Your task to perform on an android device: move an email to a new category in the gmail app Image 0: 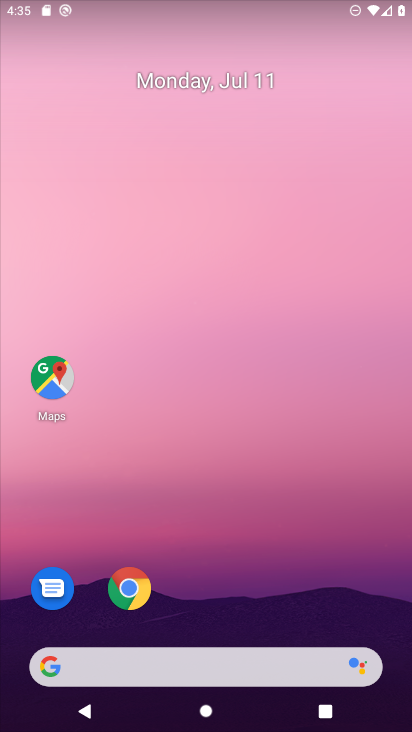
Step 0: press home button
Your task to perform on an android device: move an email to a new category in the gmail app Image 1: 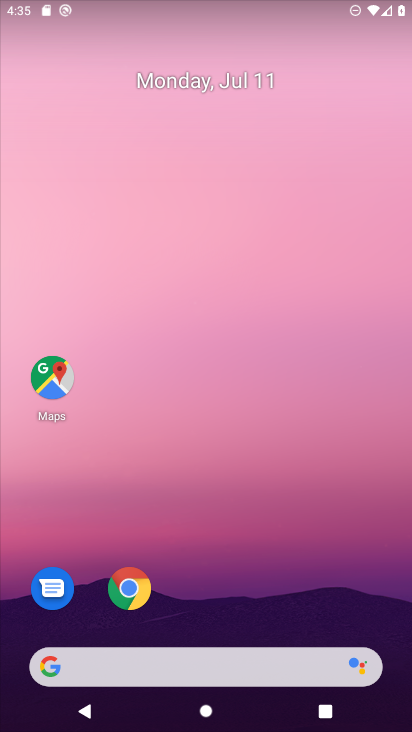
Step 1: click (410, 596)
Your task to perform on an android device: move an email to a new category in the gmail app Image 2: 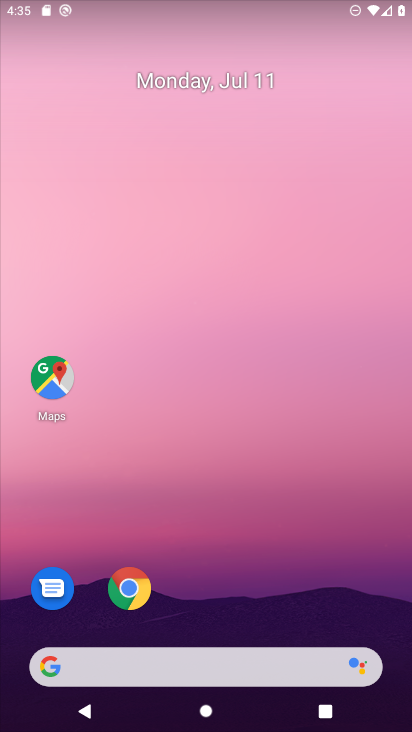
Step 2: drag from (227, 631) to (260, 113)
Your task to perform on an android device: move an email to a new category in the gmail app Image 3: 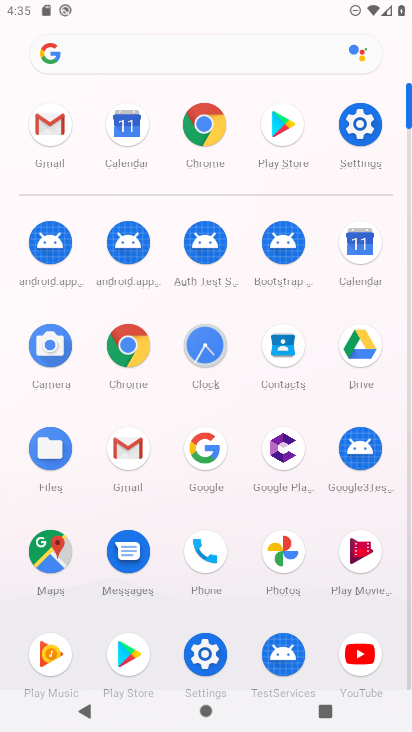
Step 3: click (47, 120)
Your task to perform on an android device: move an email to a new category in the gmail app Image 4: 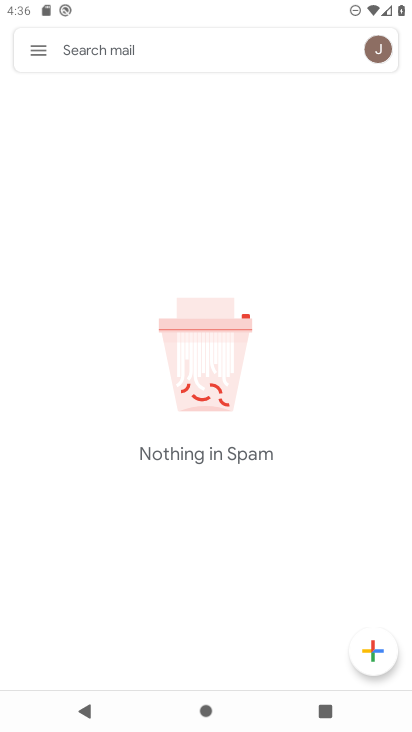
Step 4: click (38, 51)
Your task to perform on an android device: move an email to a new category in the gmail app Image 5: 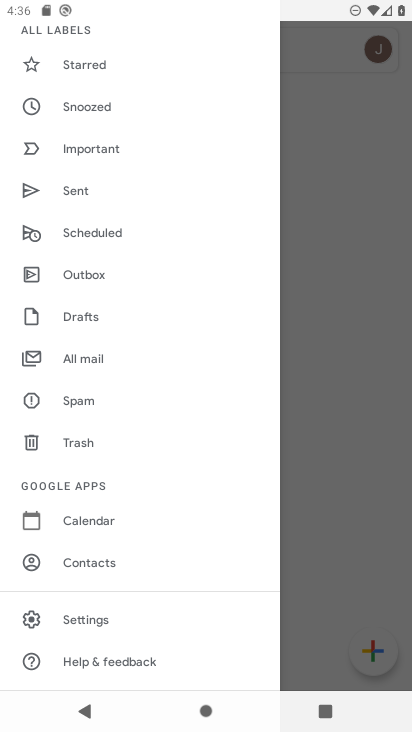
Step 5: click (73, 361)
Your task to perform on an android device: move an email to a new category in the gmail app Image 6: 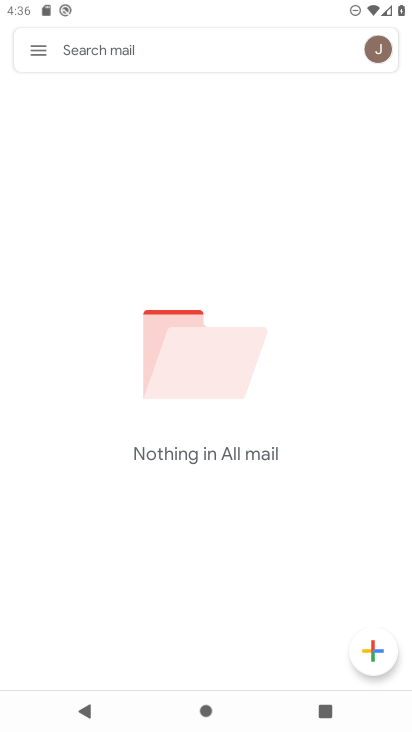
Step 6: task complete